Your task to perform on an android device: Open Reddit.com Image 0: 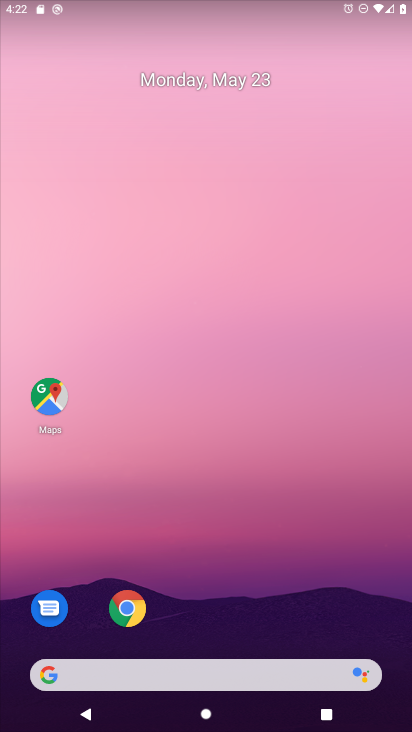
Step 0: click (128, 609)
Your task to perform on an android device: Open Reddit.com Image 1: 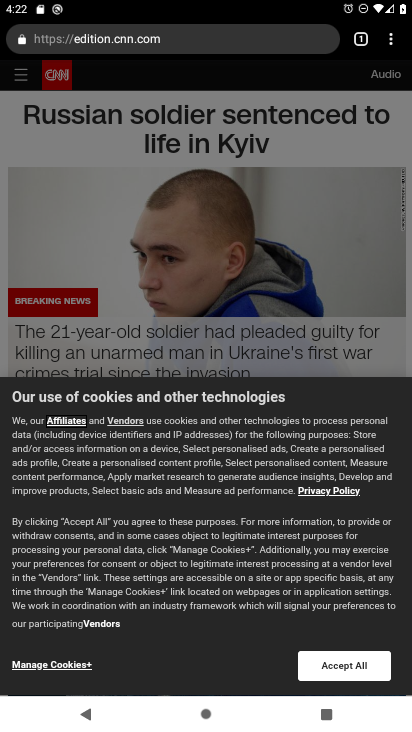
Step 1: click (228, 43)
Your task to perform on an android device: Open Reddit.com Image 2: 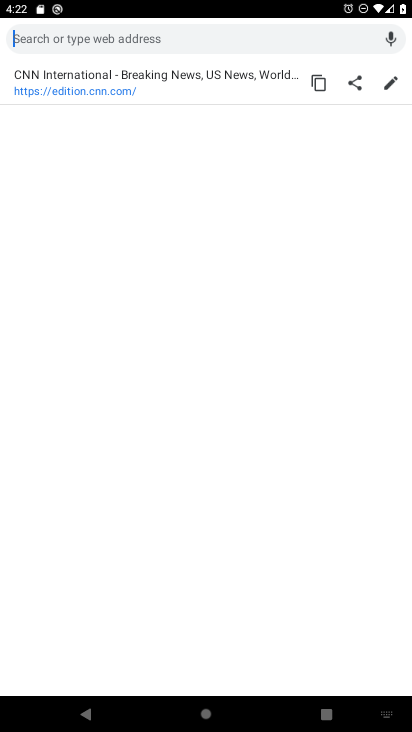
Step 2: type "Reddit.com"
Your task to perform on an android device: Open Reddit.com Image 3: 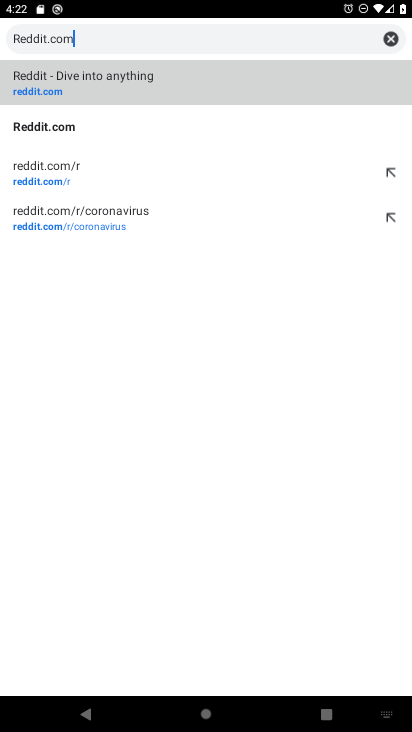
Step 3: click (62, 130)
Your task to perform on an android device: Open Reddit.com Image 4: 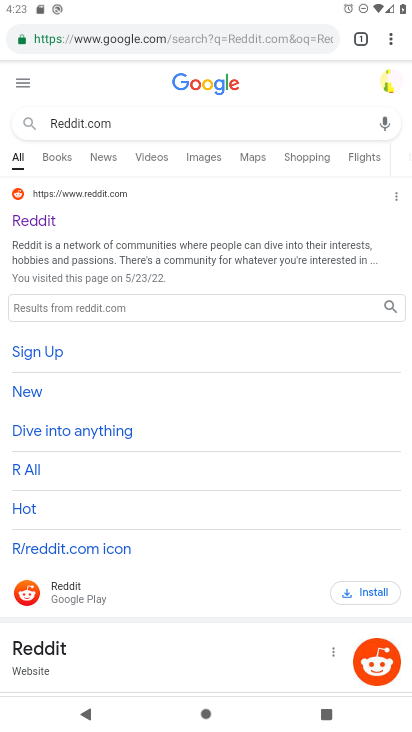
Step 4: drag from (129, 548) to (151, 418)
Your task to perform on an android device: Open Reddit.com Image 5: 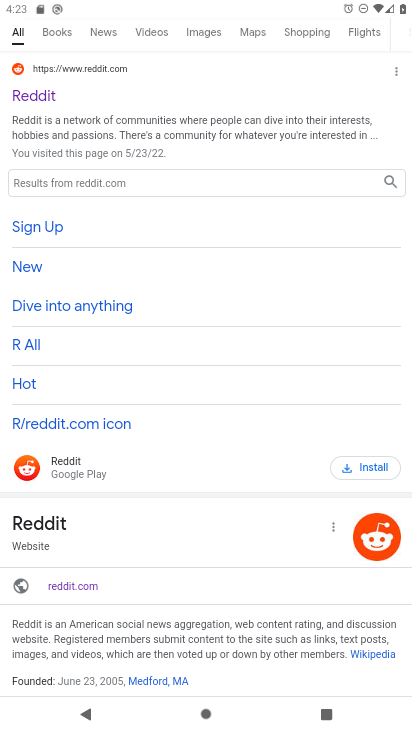
Step 5: click (33, 530)
Your task to perform on an android device: Open Reddit.com Image 6: 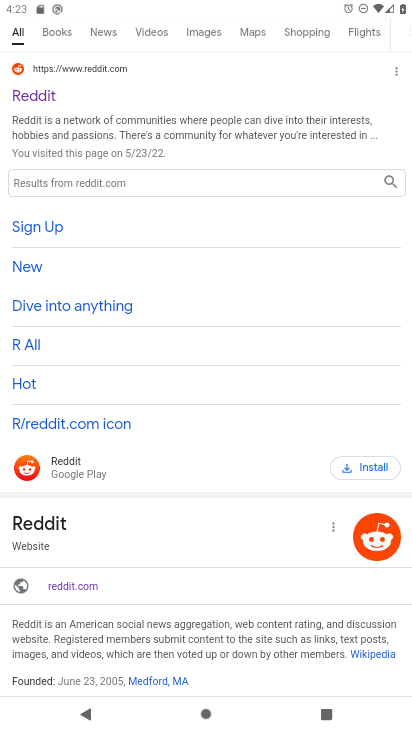
Step 6: click (50, 105)
Your task to perform on an android device: Open Reddit.com Image 7: 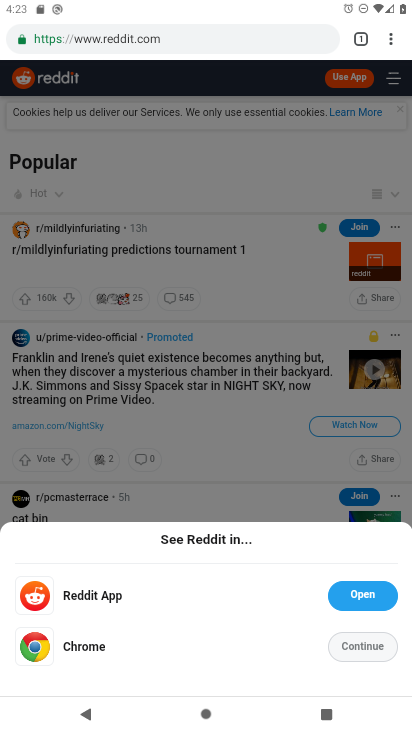
Step 7: click (352, 640)
Your task to perform on an android device: Open Reddit.com Image 8: 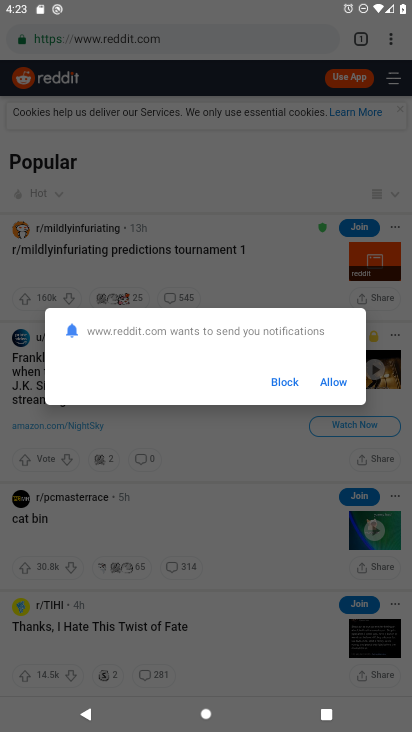
Step 8: click (332, 370)
Your task to perform on an android device: Open Reddit.com Image 9: 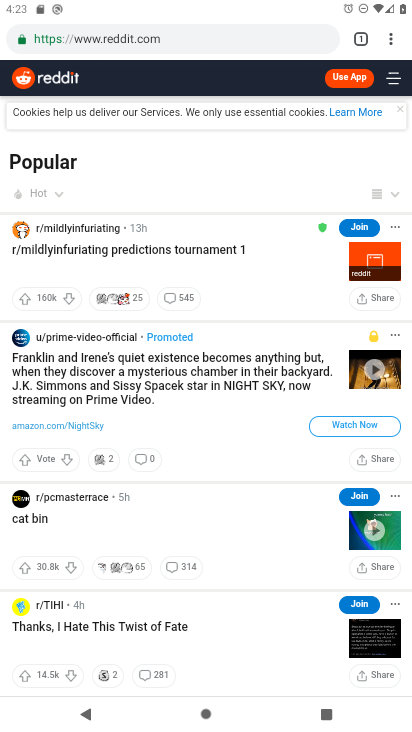
Step 9: task complete